Your task to perform on an android device: Open calendar and show me the second week of next month Image 0: 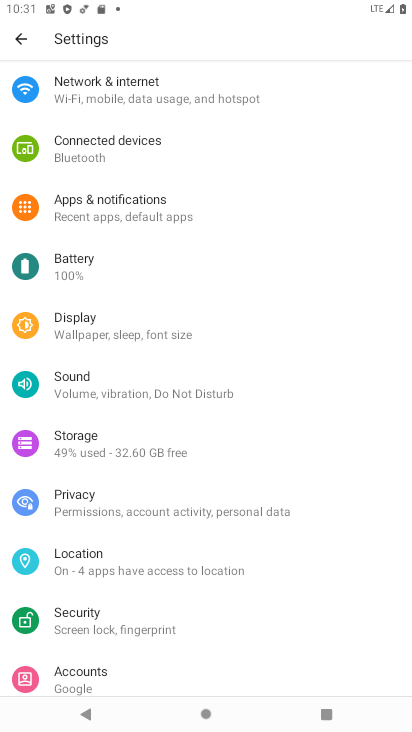
Step 0: press home button
Your task to perform on an android device: Open calendar and show me the second week of next month Image 1: 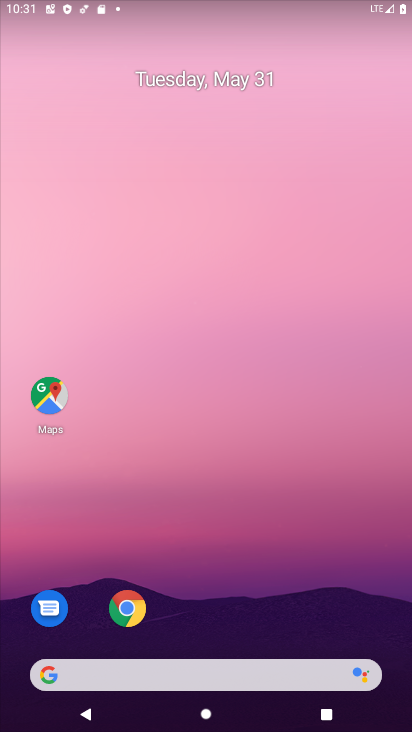
Step 1: drag from (219, 630) to (3, 452)
Your task to perform on an android device: Open calendar and show me the second week of next month Image 2: 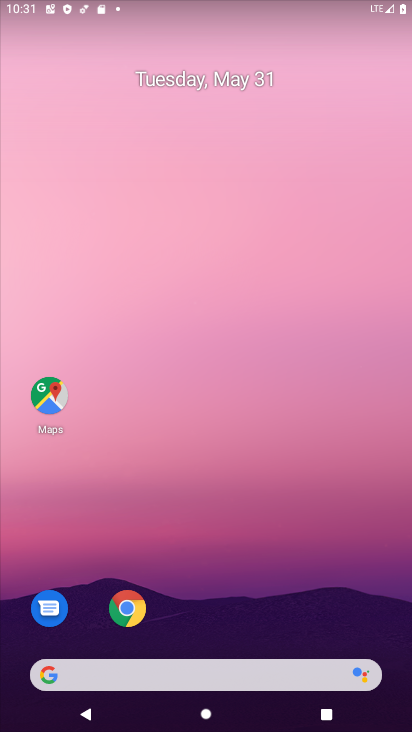
Step 2: drag from (197, 650) to (299, 12)
Your task to perform on an android device: Open calendar and show me the second week of next month Image 3: 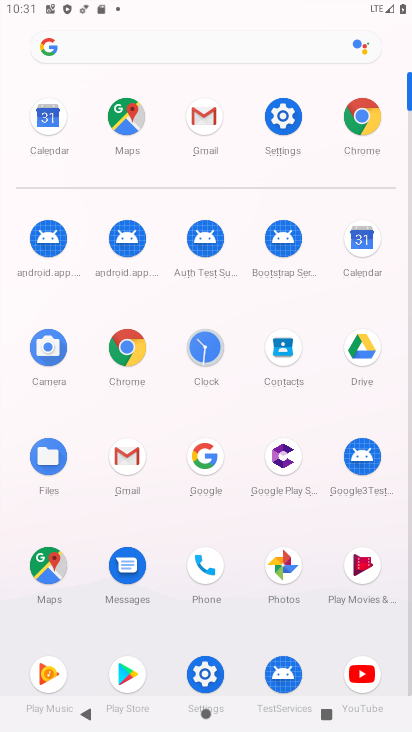
Step 3: click (366, 227)
Your task to perform on an android device: Open calendar and show me the second week of next month Image 4: 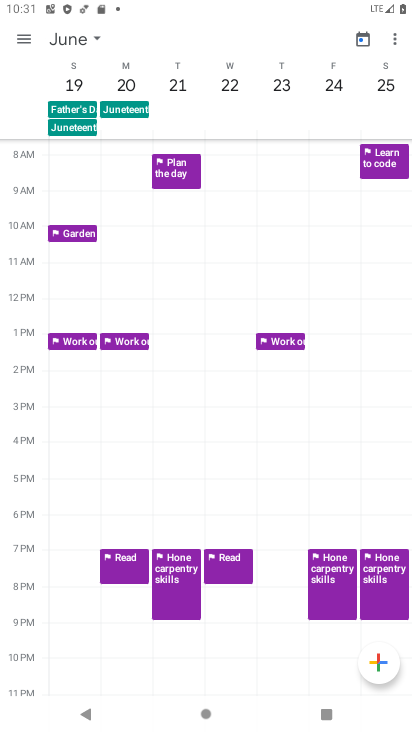
Step 4: task complete